Your task to perform on an android device: Open eBay Image 0: 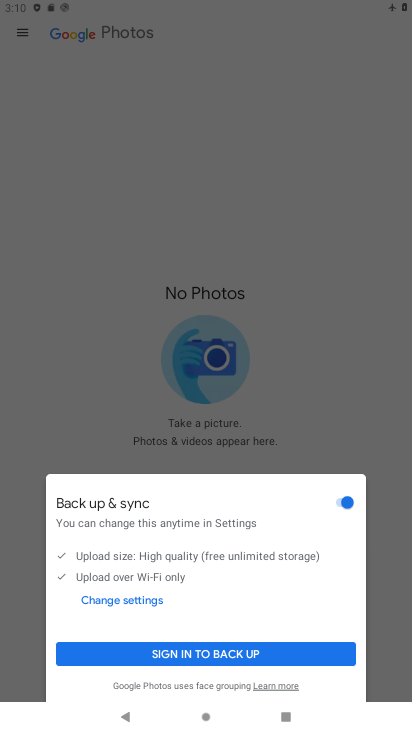
Step 0: press home button
Your task to perform on an android device: Open eBay Image 1: 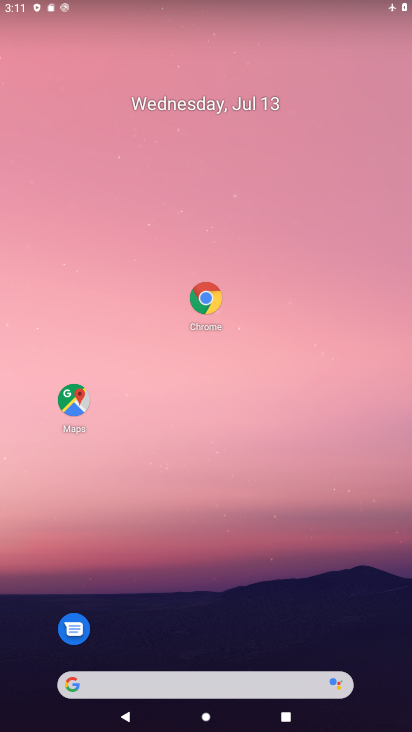
Step 1: click (213, 294)
Your task to perform on an android device: Open eBay Image 2: 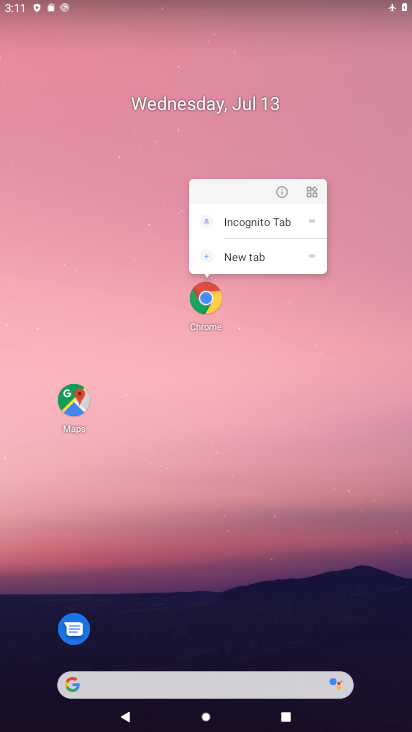
Step 2: click (206, 304)
Your task to perform on an android device: Open eBay Image 3: 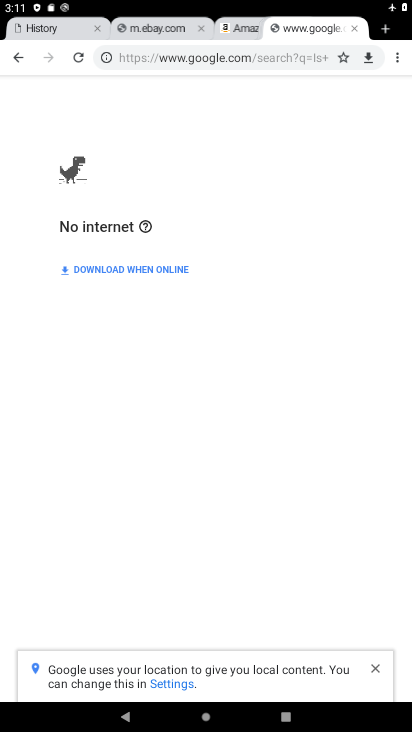
Step 3: click (387, 28)
Your task to perform on an android device: Open eBay Image 4: 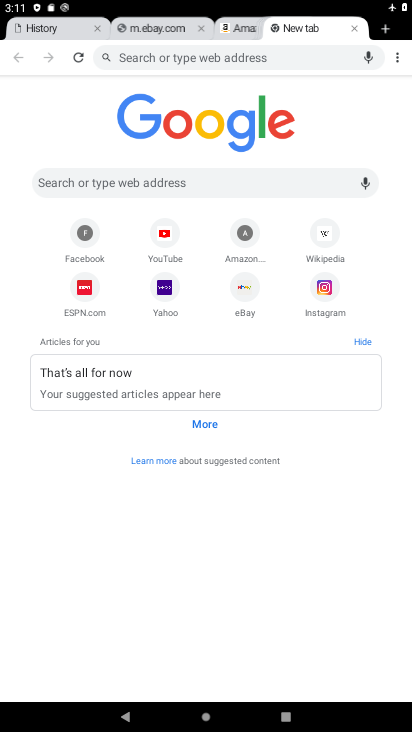
Step 4: click (245, 280)
Your task to perform on an android device: Open eBay Image 5: 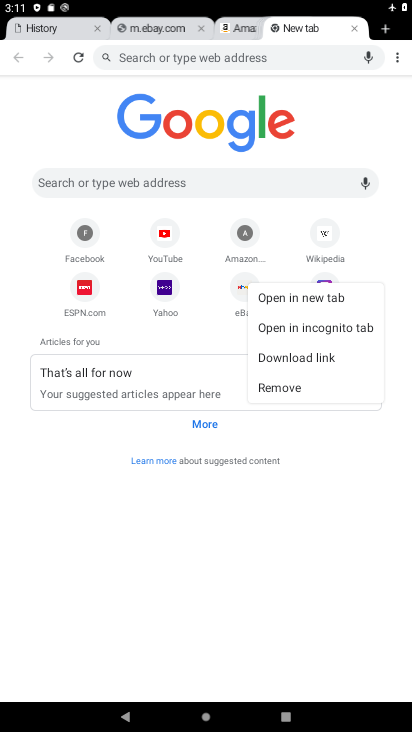
Step 5: click (238, 291)
Your task to perform on an android device: Open eBay Image 6: 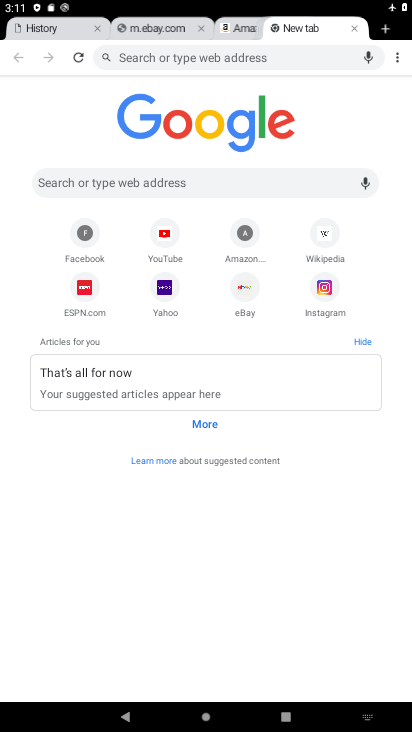
Step 6: click (238, 291)
Your task to perform on an android device: Open eBay Image 7: 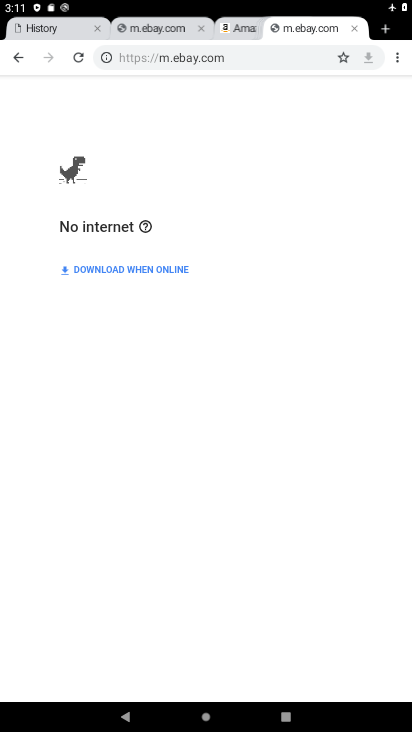
Step 7: task complete